Your task to perform on an android device: Clear all items from cart on amazon.com. Image 0: 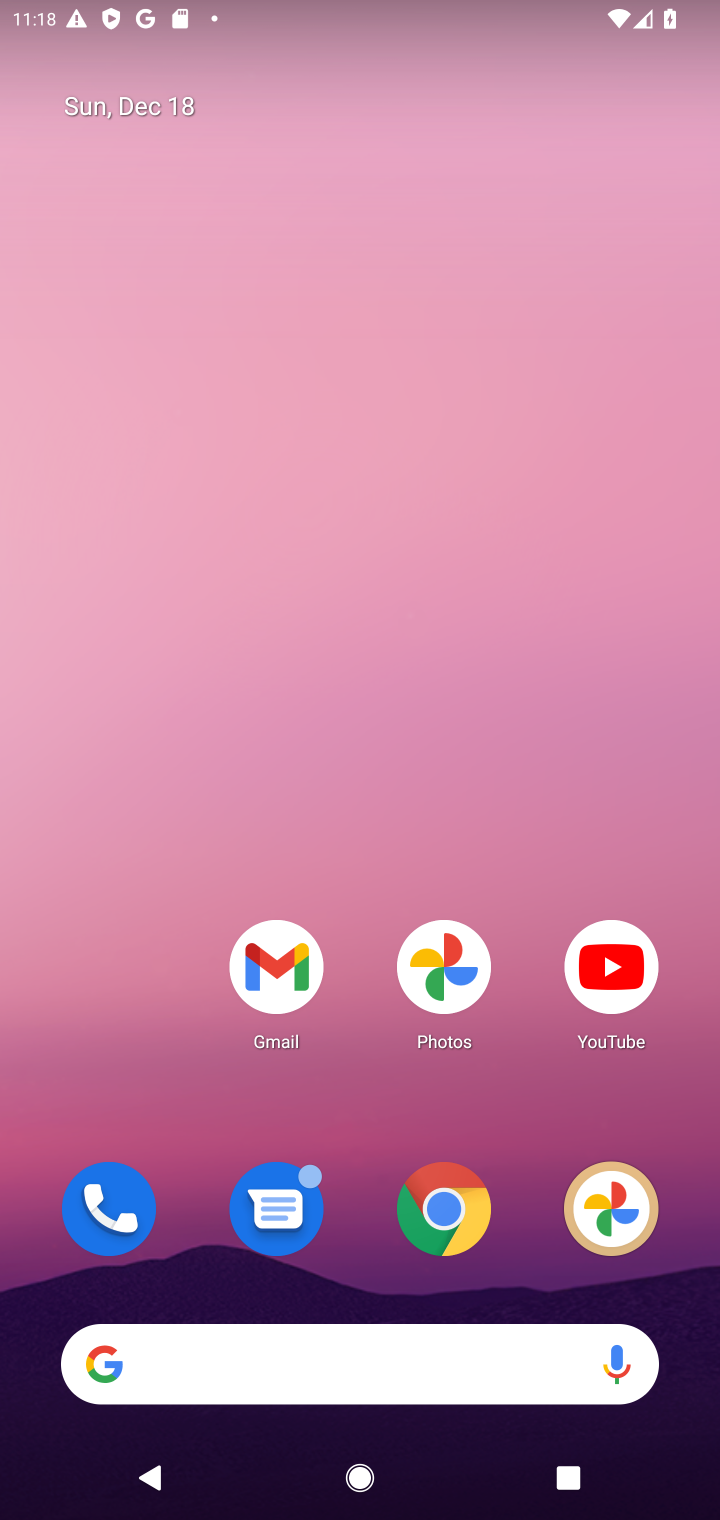
Step 0: click (462, 1197)
Your task to perform on an android device: Clear all items from cart on amazon.com. Image 1: 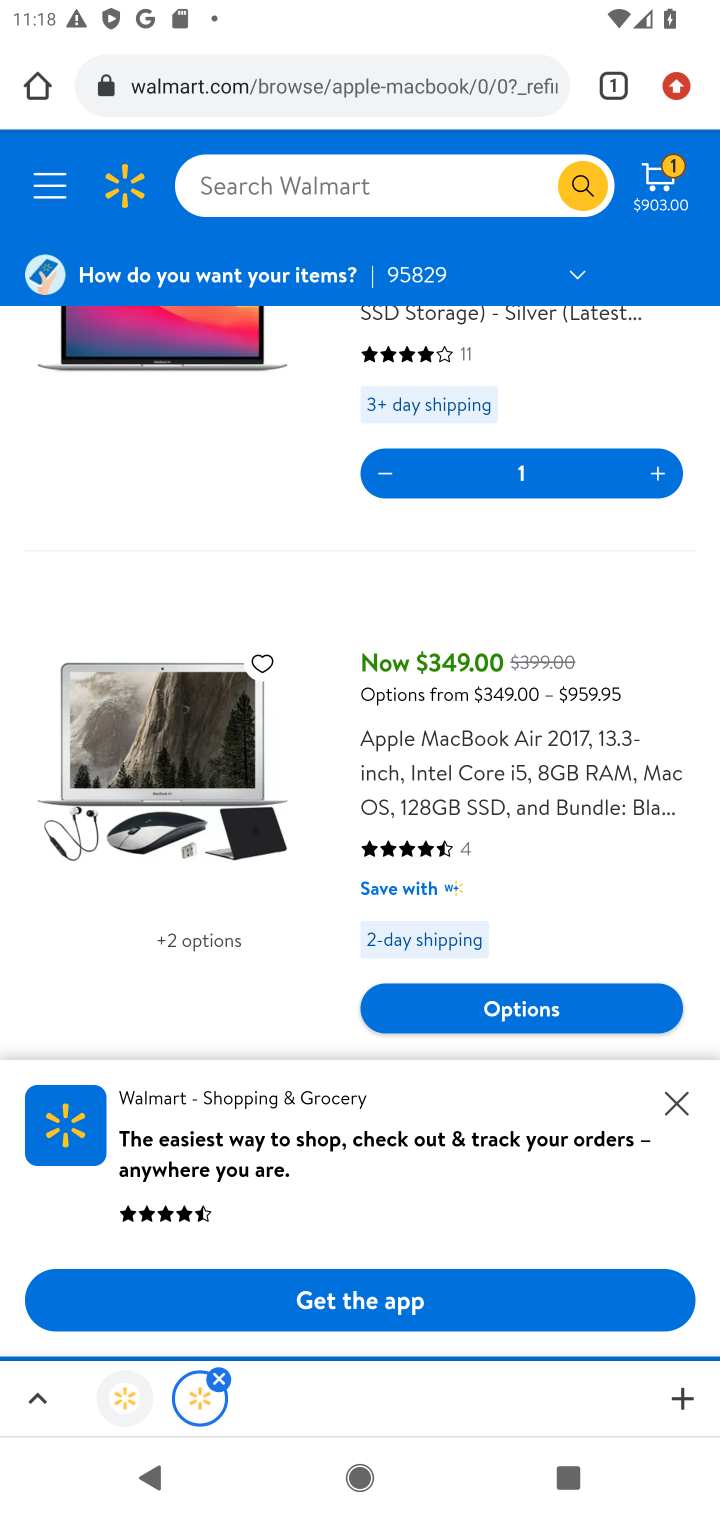
Step 1: click (364, 92)
Your task to perform on an android device: Clear all items from cart on amazon.com. Image 2: 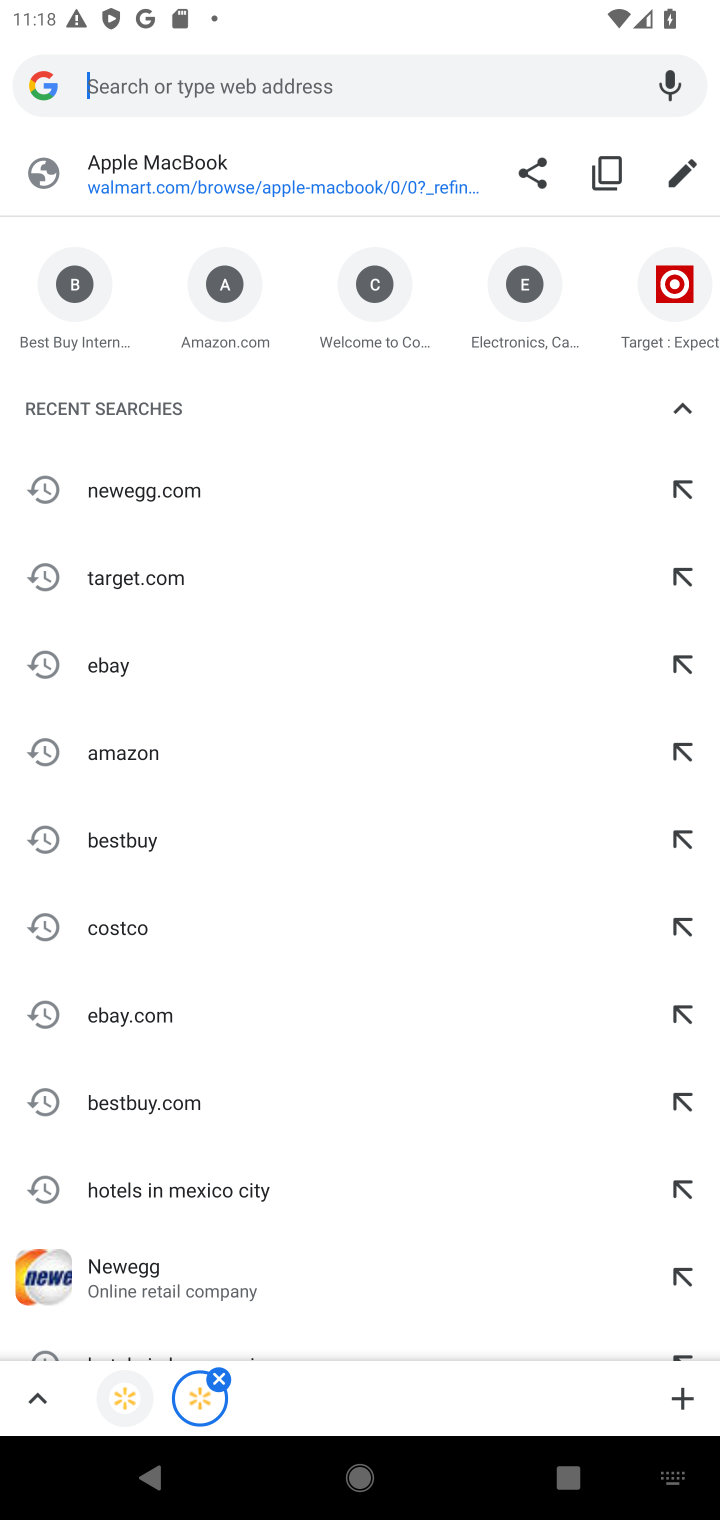
Step 2: click (166, 754)
Your task to perform on an android device: Clear all items from cart on amazon.com. Image 3: 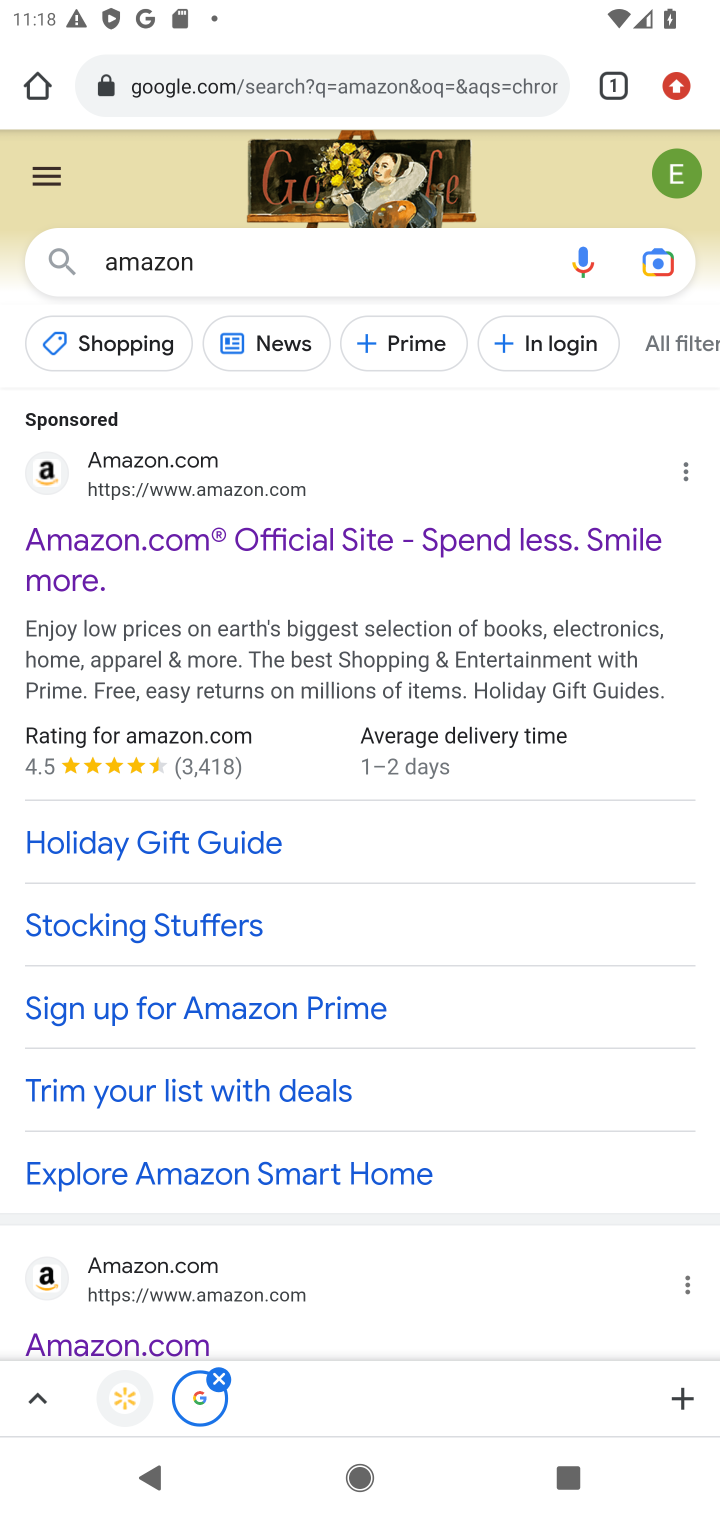
Step 3: click (319, 549)
Your task to perform on an android device: Clear all items from cart on amazon.com. Image 4: 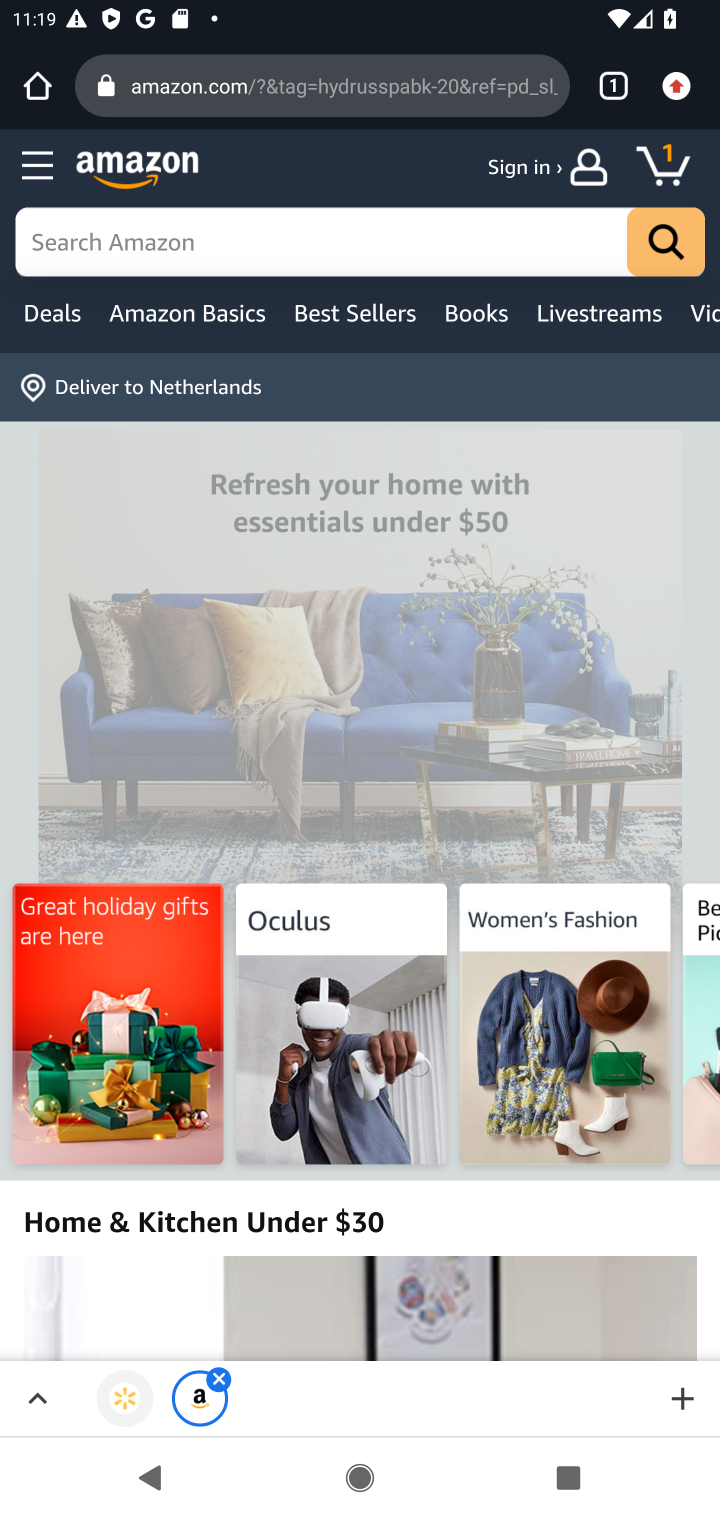
Step 4: click (661, 159)
Your task to perform on an android device: Clear all items from cart on amazon.com. Image 5: 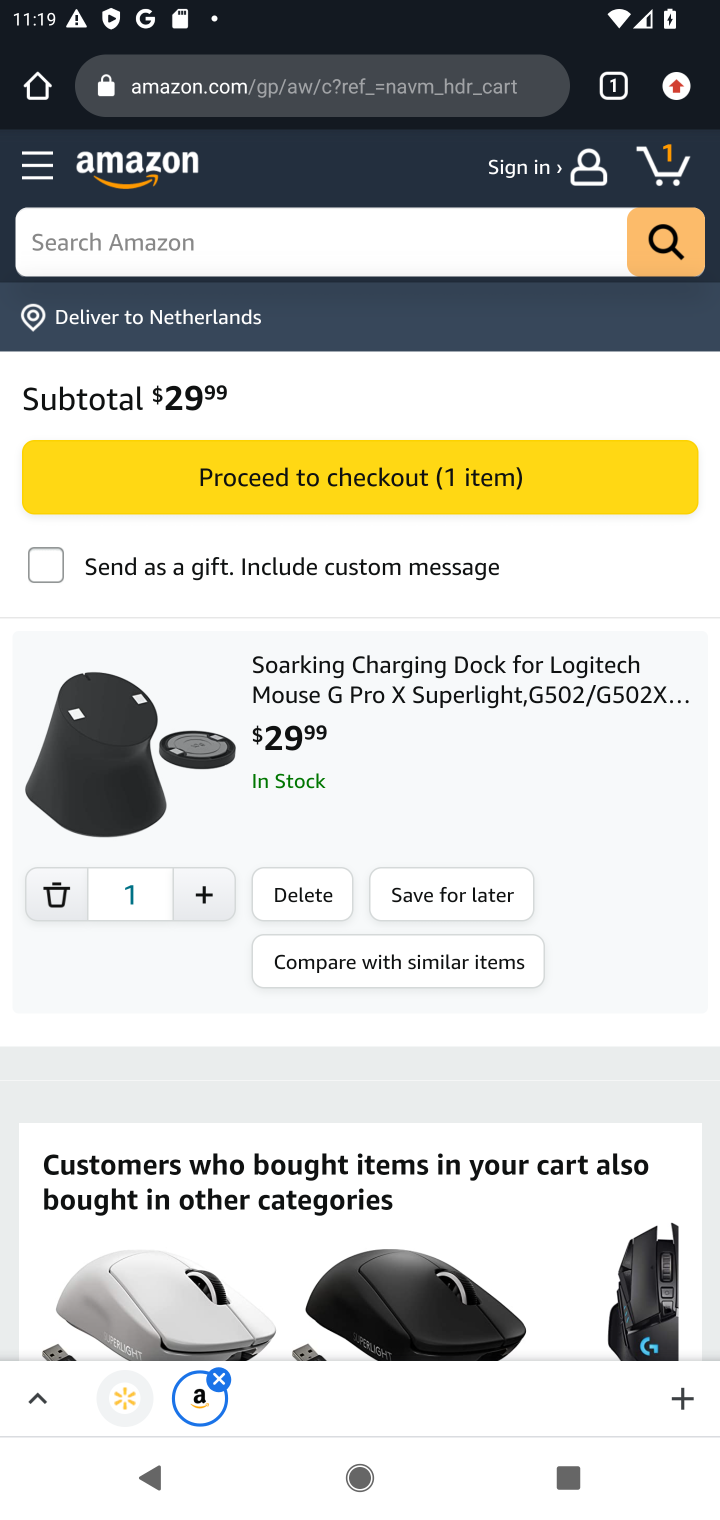
Step 5: click (270, 894)
Your task to perform on an android device: Clear all items from cart on amazon.com. Image 6: 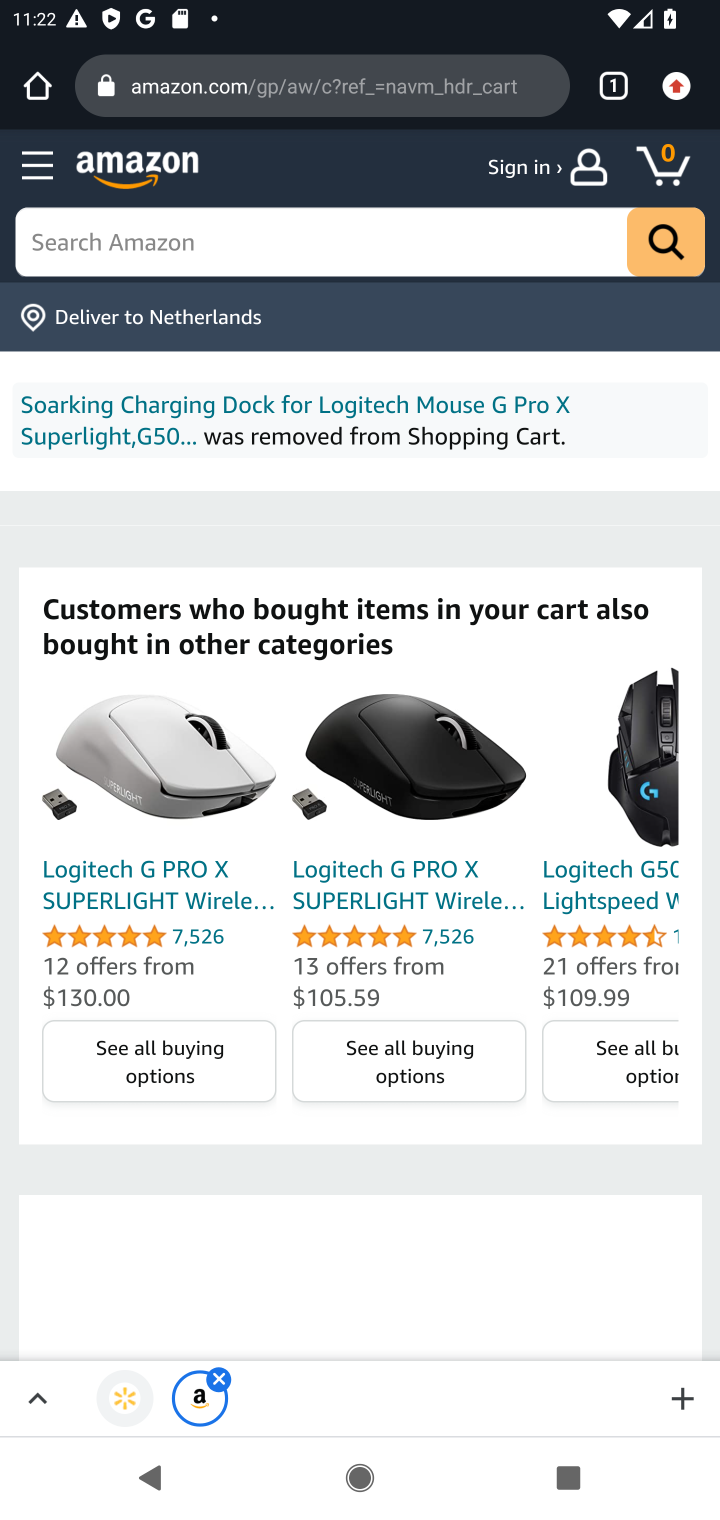
Step 6: click (444, 251)
Your task to perform on an android device: Clear all items from cart on amazon.com. Image 7: 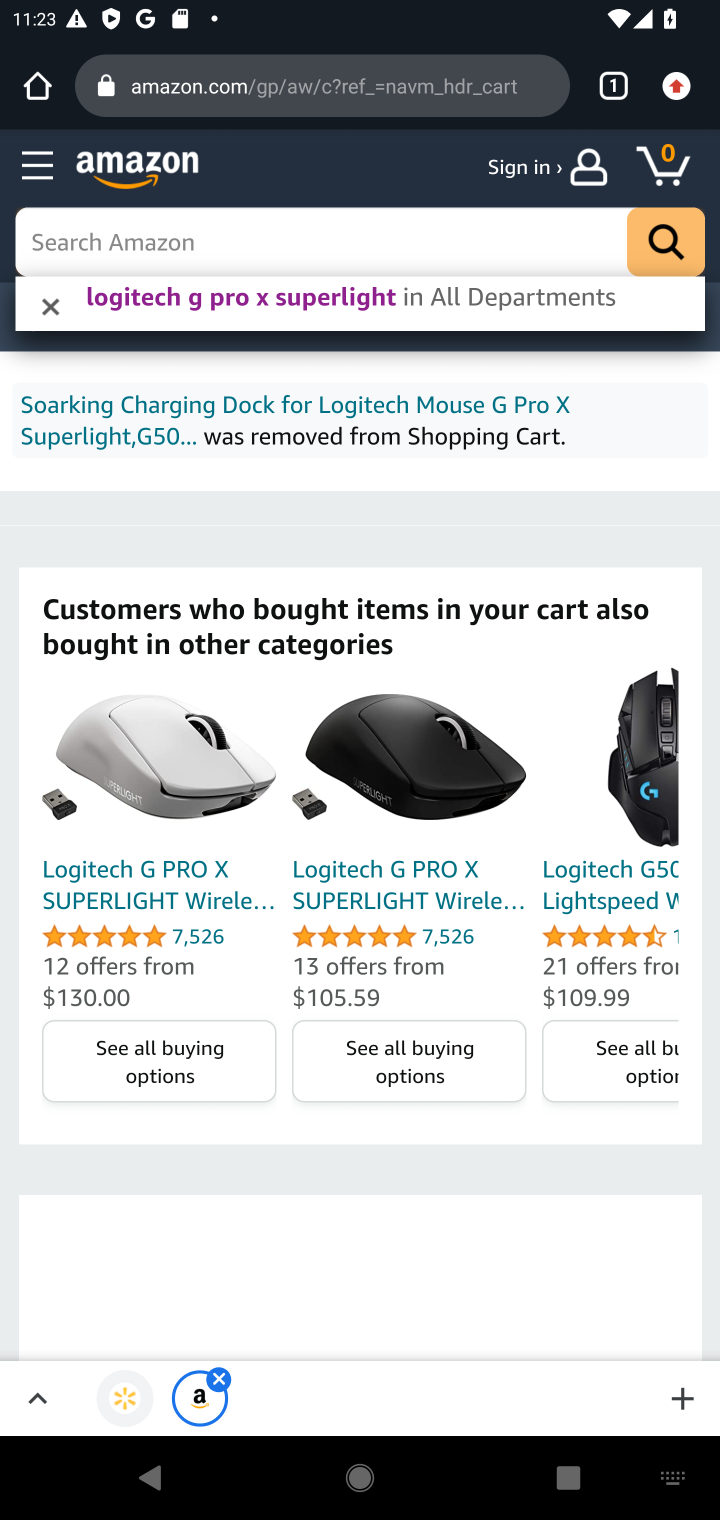
Step 7: task complete